Your task to perform on an android device: set an alarm Image 0: 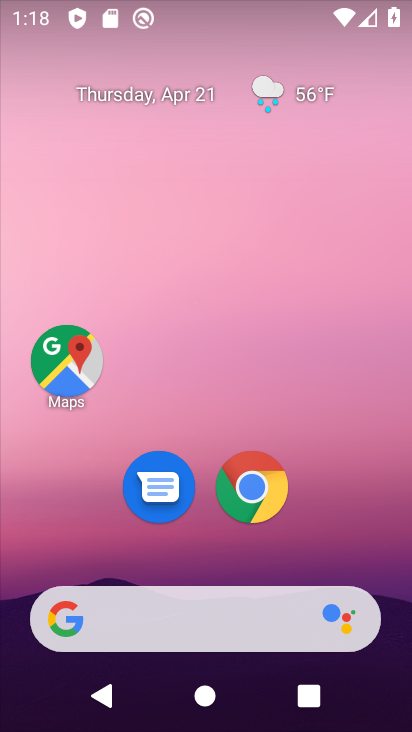
Step 0: drag from (380, 382) to (345, 4)
Your task to perform on an android device: set an alarm Image 1: 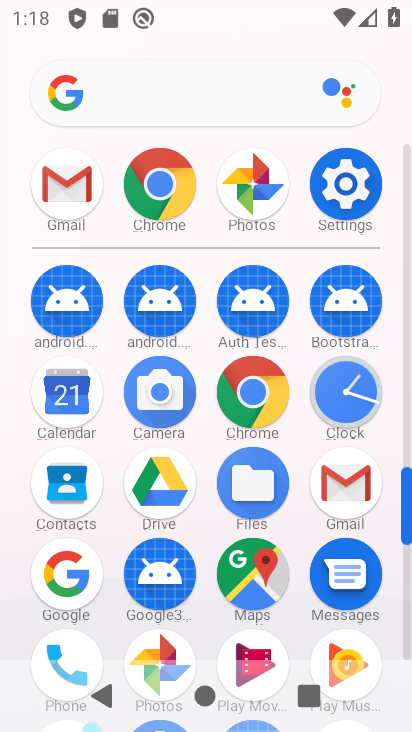
Step 1: click (335, 387)
Your task to perform on an android device: set an alarm Image 2: 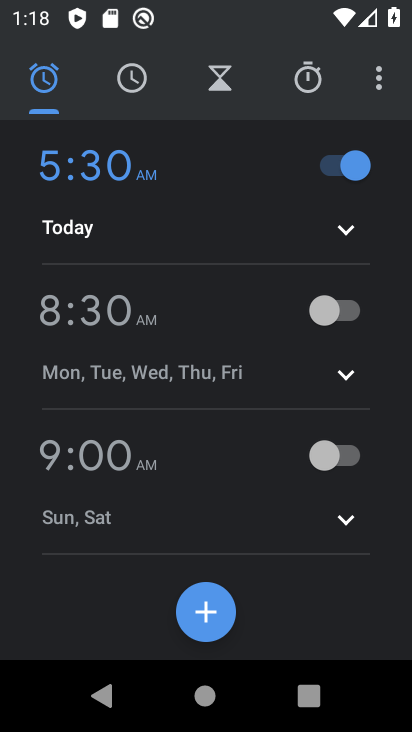
Step 2: click (200, 625)
Your task to perform on an android device: set an alarm Image 3: 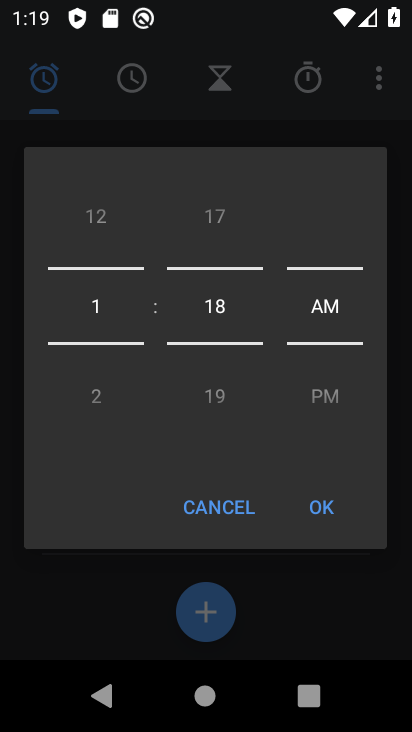
Step 3: drag from (95, 307) to (115, 12)
Your task to perform on an android device: set an alarm Image 4: 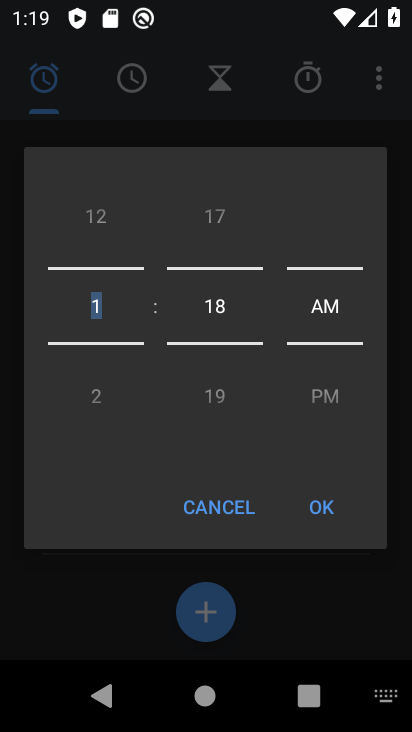
Step 4: drag from (85, 418) to (112, 55)
Your task to perform on an android device: set an alarm Image 5: 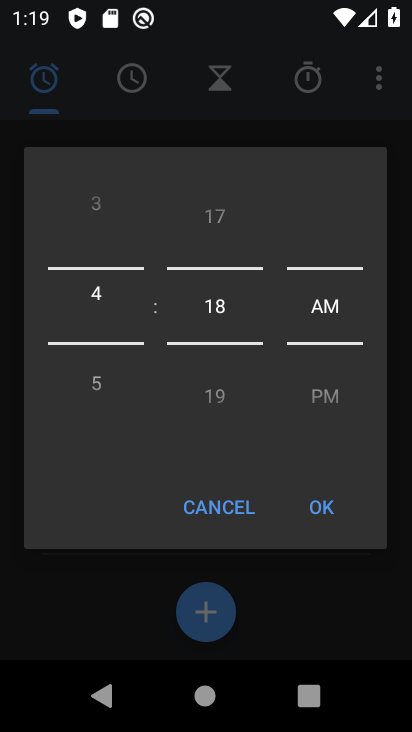
Step 5: drag from (90, 382) to (102, 41)
Your task to perform on an android device: set an alarm Image 6: 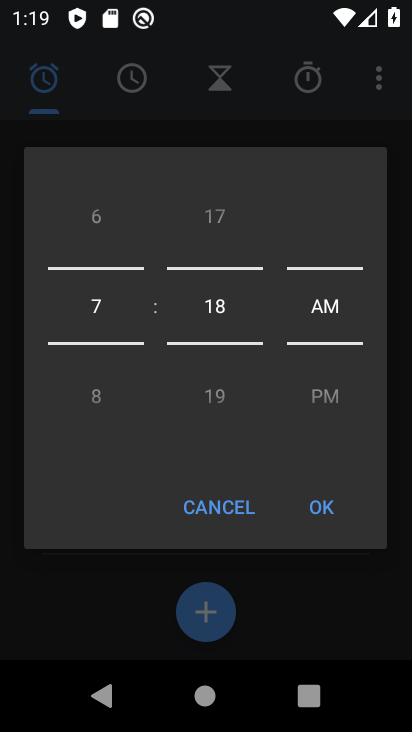
Step 6: drag from (221, 310) to (258, 666)
Your task to perform on an android device: set an alarm Image 7: 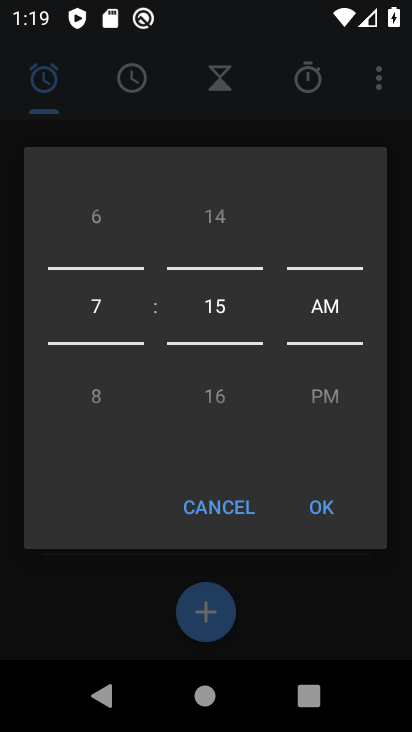
Step 7: drag from (205, 330) to (232, 672)
Your task to perform on an android device: set an alarm Image 8: 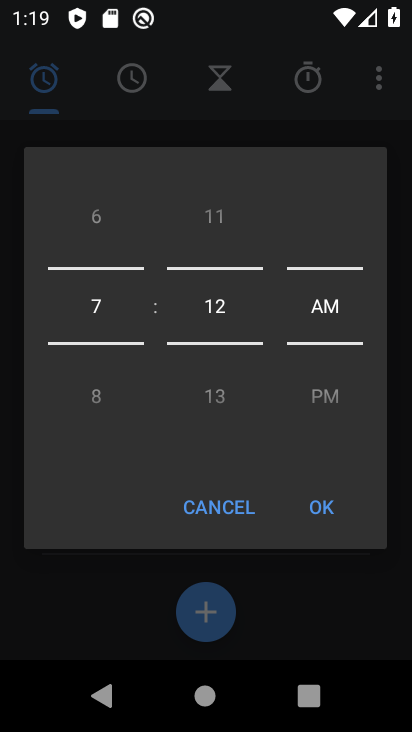
Step 8: drag from (205, 298) to (213, 642)
Your task to perform on an android device: set an alarm Image 9: 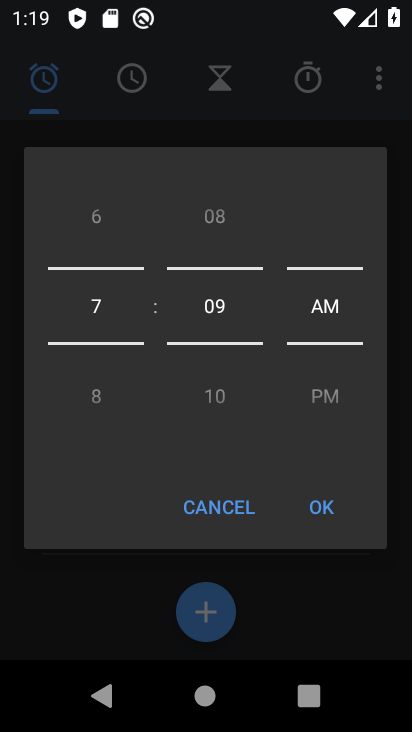
Step 9: drag from (218, 334) to (207, 672)
Your task to perform on an android device: set an alarm Image 10: 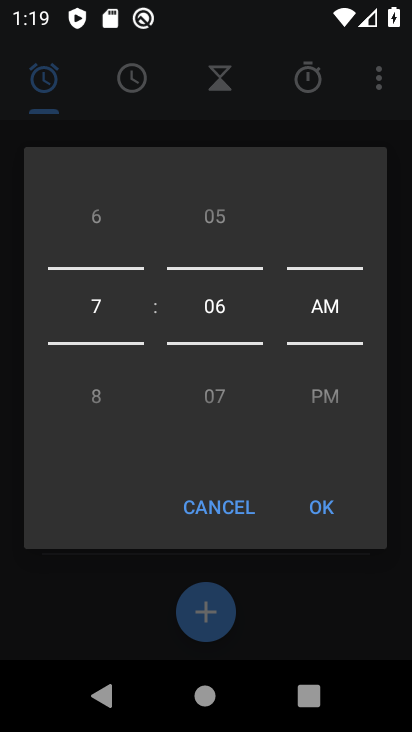
Step 10: drag from (203, 397) to (201, 614)
Your task to perform on an android device: set an alarm Image 11: 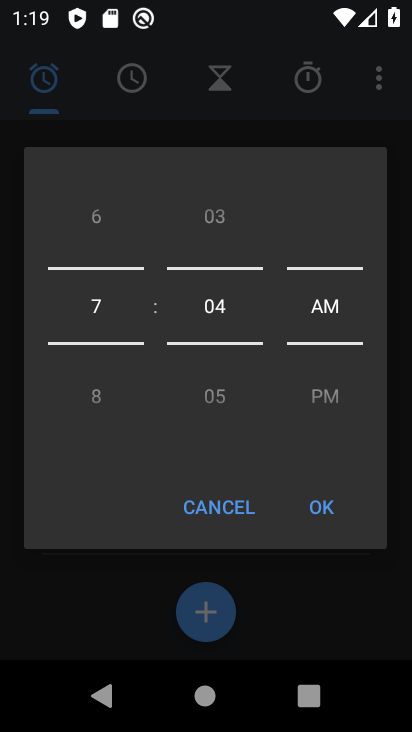
Step 11: click (336, 515)
Your task to perform on an android device: set an alarm Image 12: 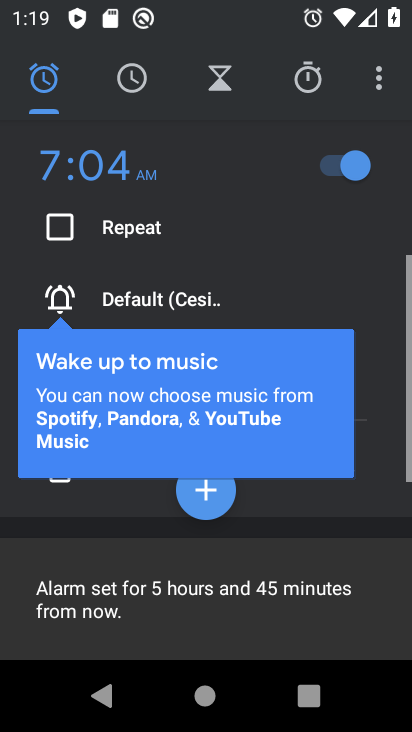
Step 12: task complete